Your task to perform on an android device: What's the news? Image 0: 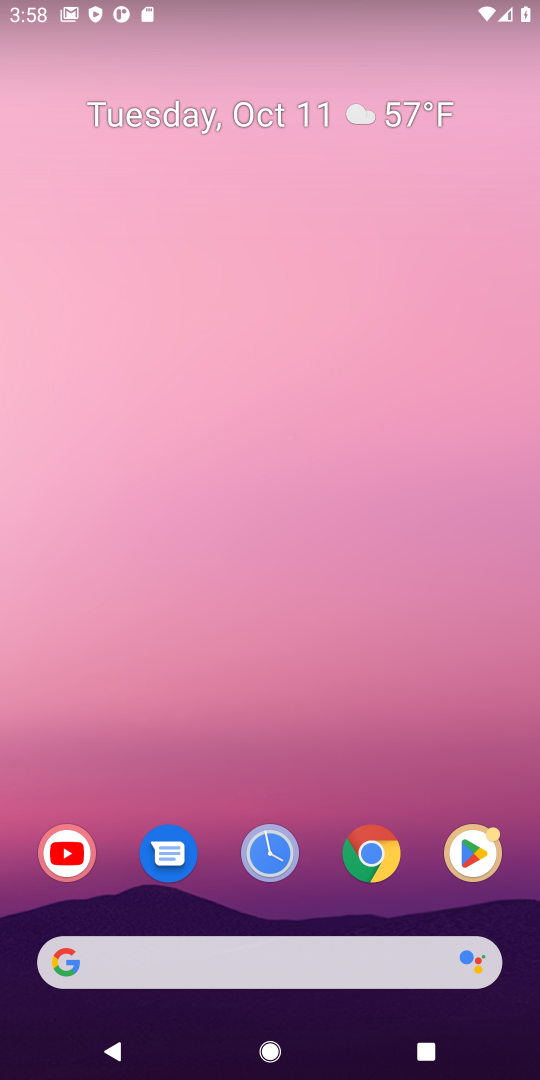
Step 0: click (374, 855)
Your task to perform on an android device: What's the news? Image 1: 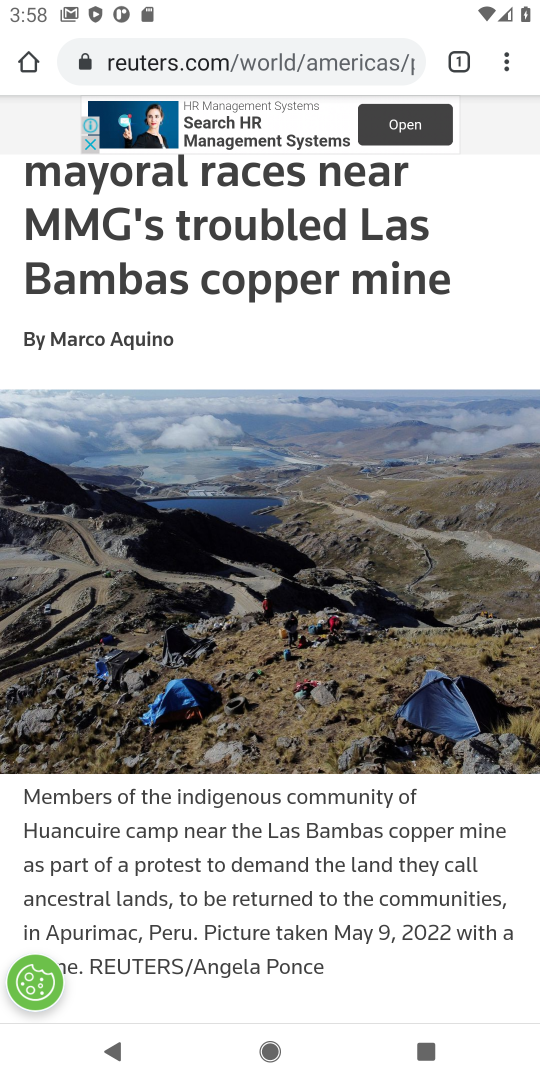
Step 1: click (242, 46)
Your task to perform on an android device: What's the news? Image 2: 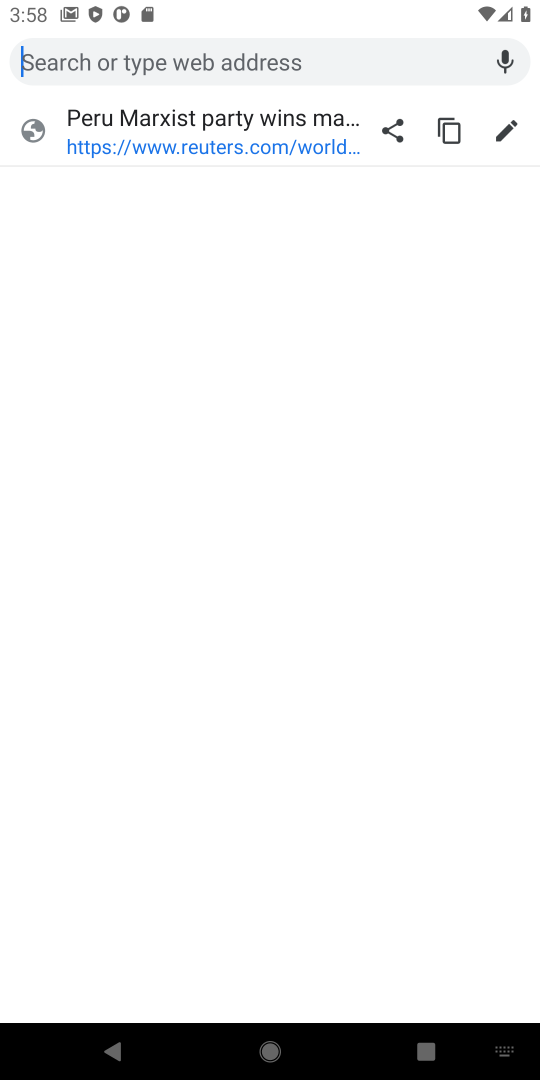
Step 2: type "news"
Your task to perform on an android device: What's the news? Image 3: 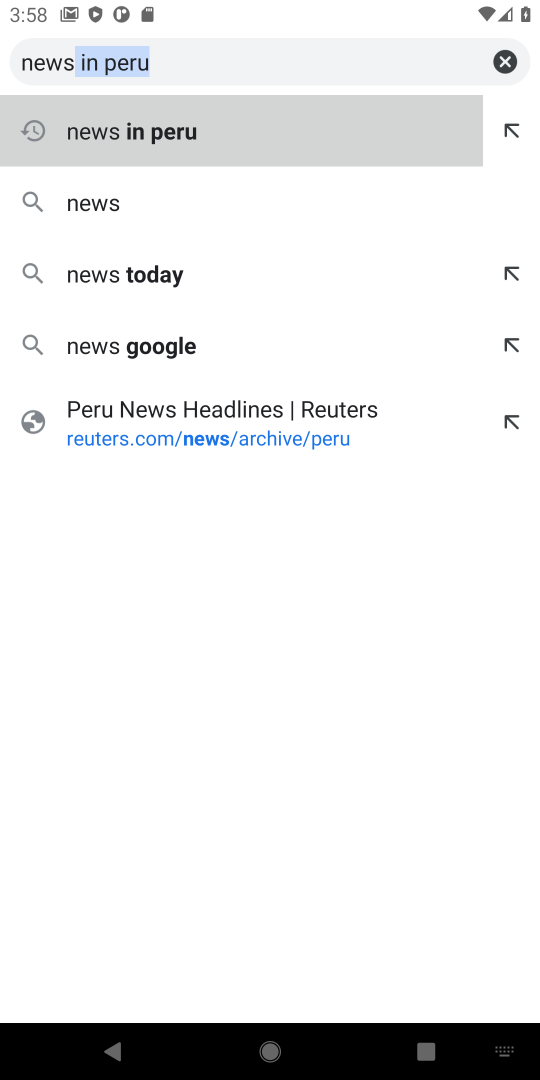
Step 3: click (82, 207)
Your task to perform on an android device: What's the news? Image 4: 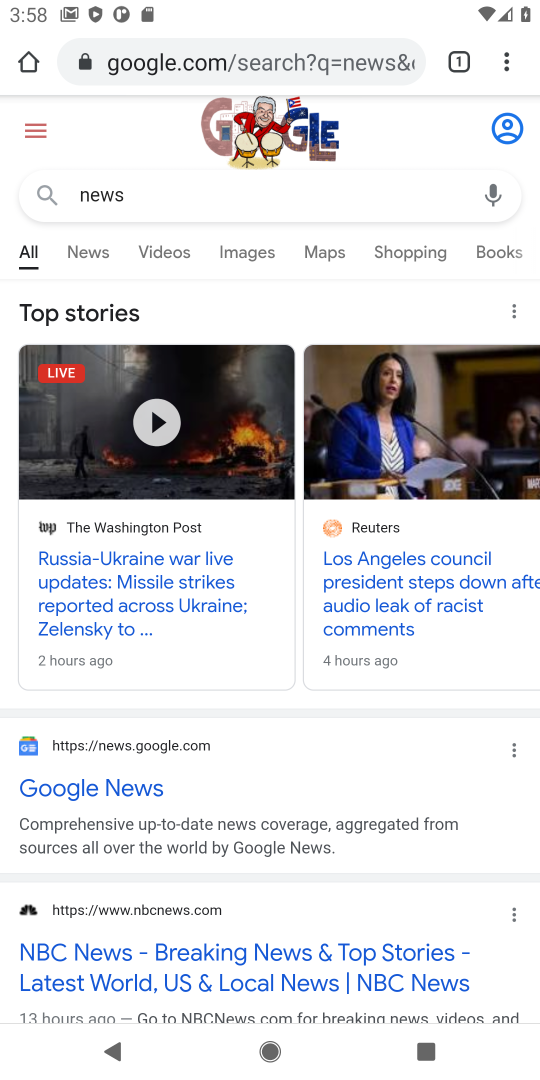
Step 4: drag from (237, 785) to (264, 302)
Your task to perform on an android device: What's the news? Image 5: 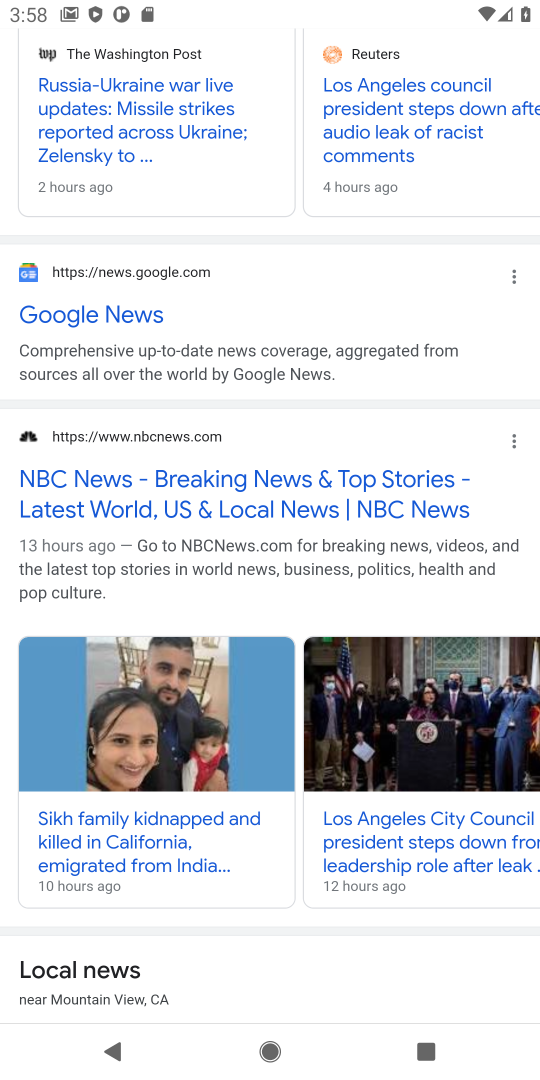
Step 5: drag from (232, 599) to (203, 176)
Your task to perform on an android device: What's the news? Image 6: 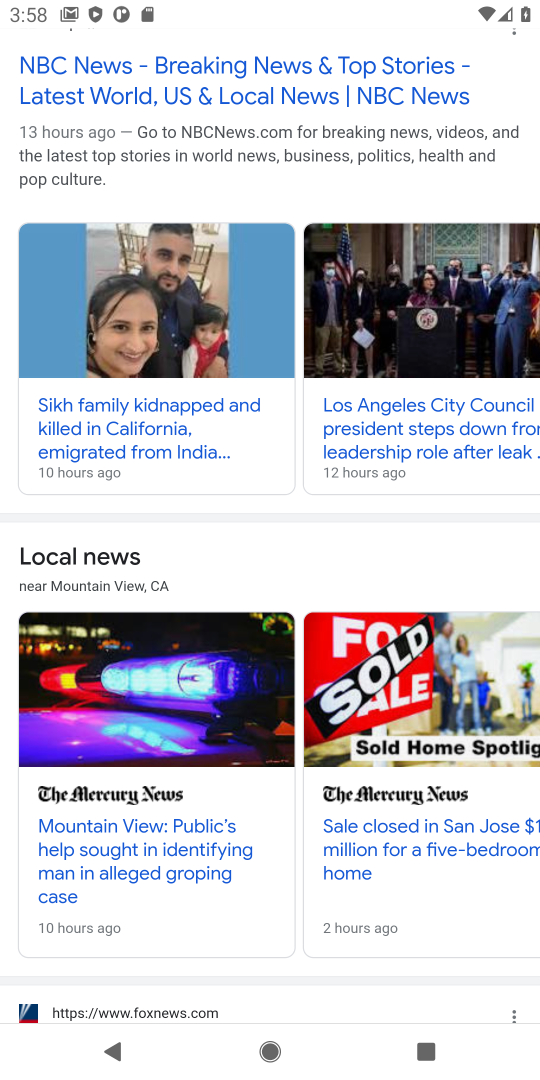
Step 6: click (76, 66)
Your task to perform on an android device: What's the news? Image 7: 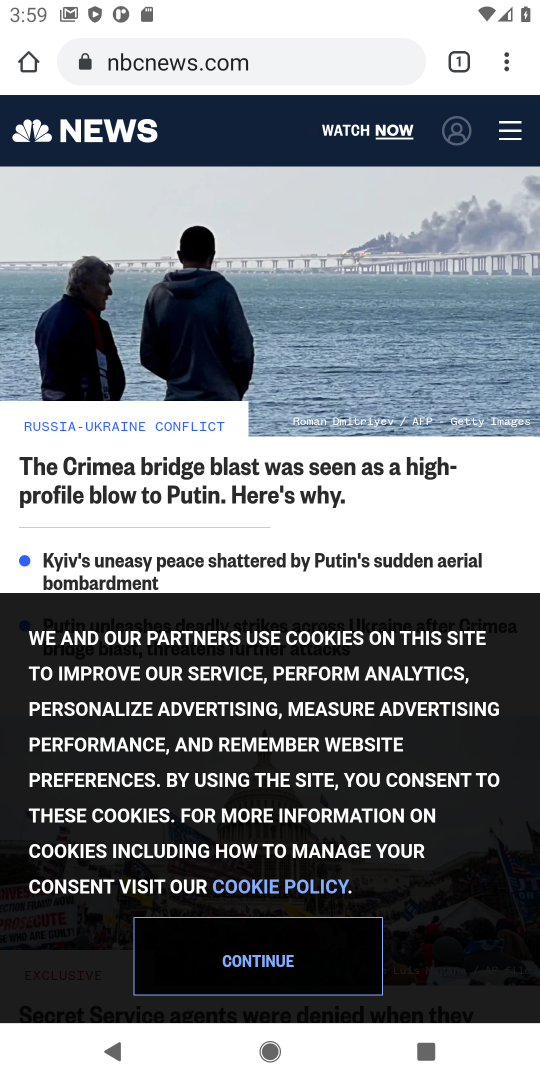
Step 7: click (247, 963)
Your task to perform on an android device: What's the news? Image 8: 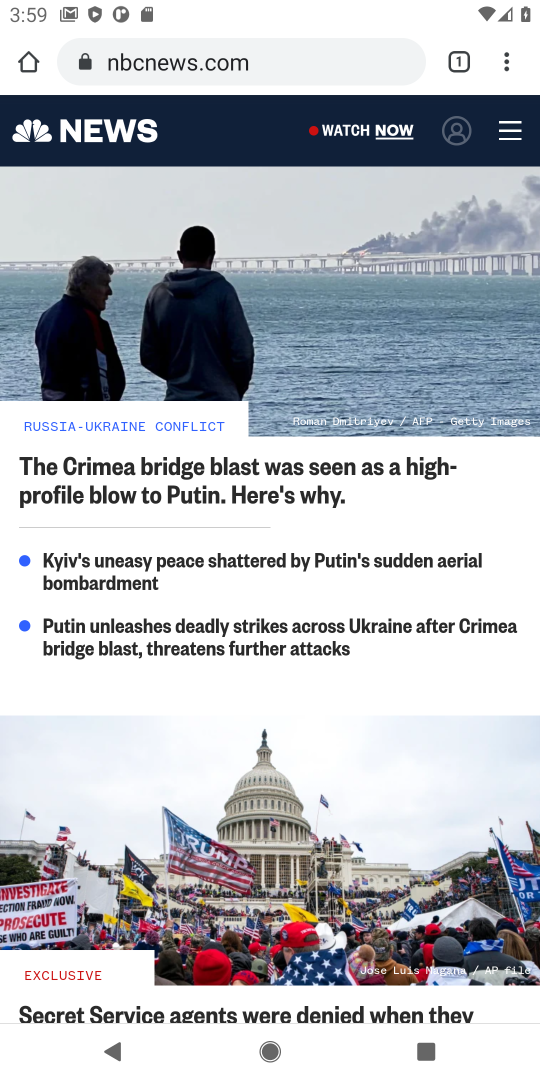
Step 8: task complete